Your task to perform on an android device: Show me productivity apps on the Play Store Image 0: 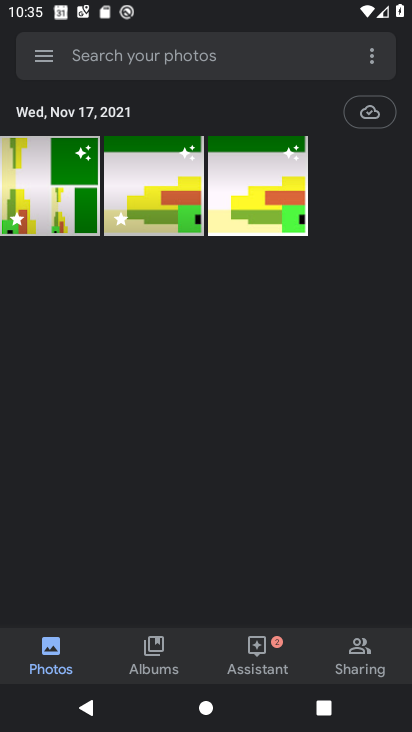
Step 0: click (74, 199)
Your task to perform on an android device: Show me productivity apps on the Play Store Image 1: 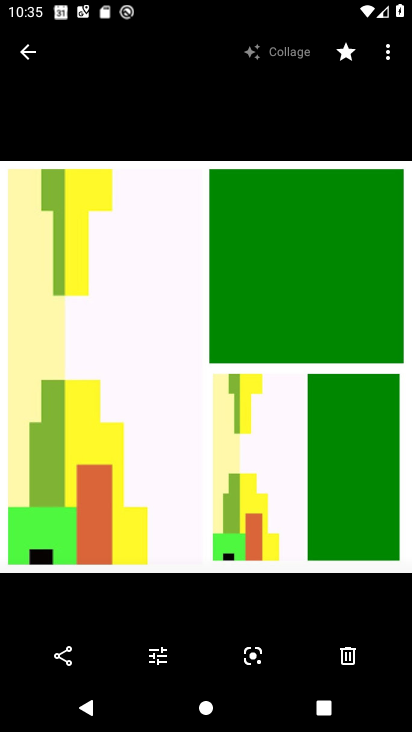
Step 1: press home button
Your task to perform on an android device: Show me productivity apps on the Play Store Image 2: 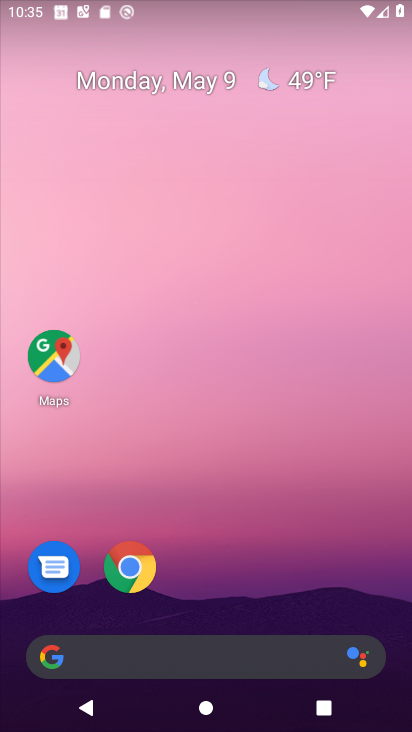
Step 2: drag from (217, 638) to (195, 251)
Your task to perform on an android device: Show me productivity apps on the Play Store Image 3: 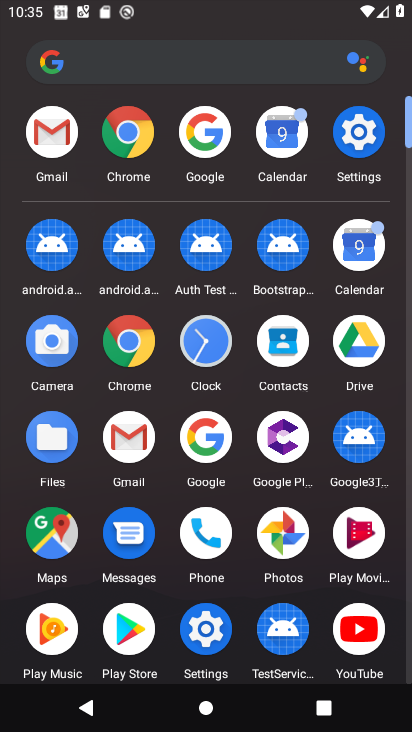
Step 3: click (120, 636)
Your task to perform on an android device: Show me productivity apps on the Play Store Image 4: 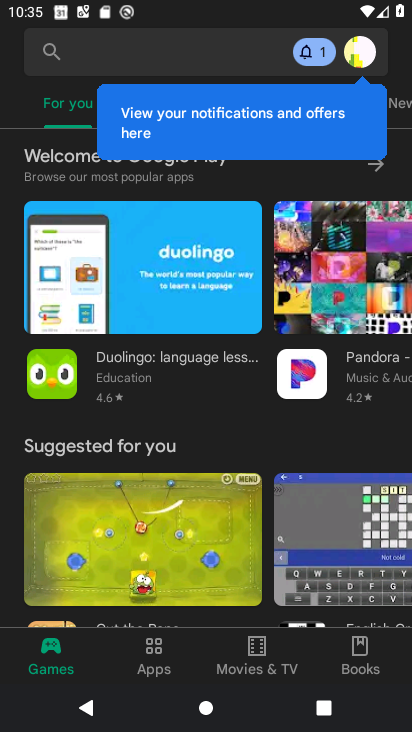
Step 4: click (154, 655)
Your task to perform on an android device: Show me productivity apps on the Play Store Image 5: 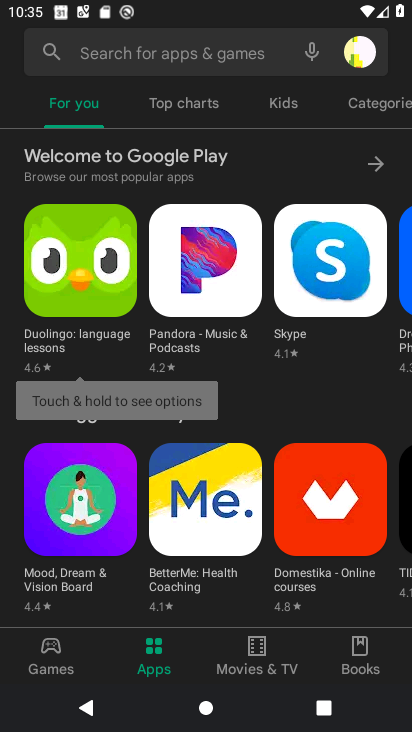
Step 5: task complete